Your task to perform on an android device: Open accessibility settings Image 0: 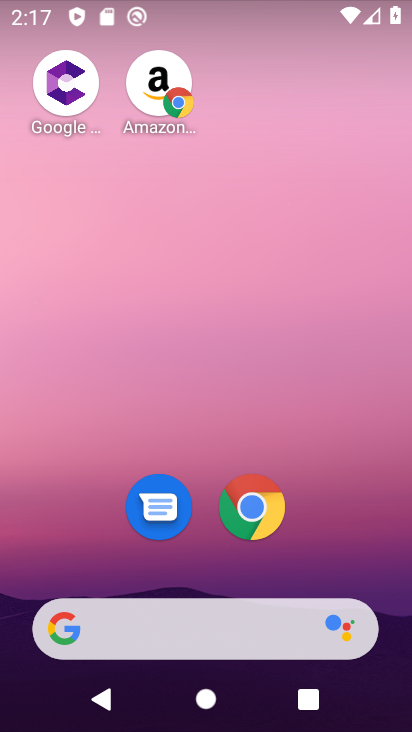
Step 0: drag from (270, 588) to (286, 247)
Your task to perform on an android device: Open accessibility settings Image 1: 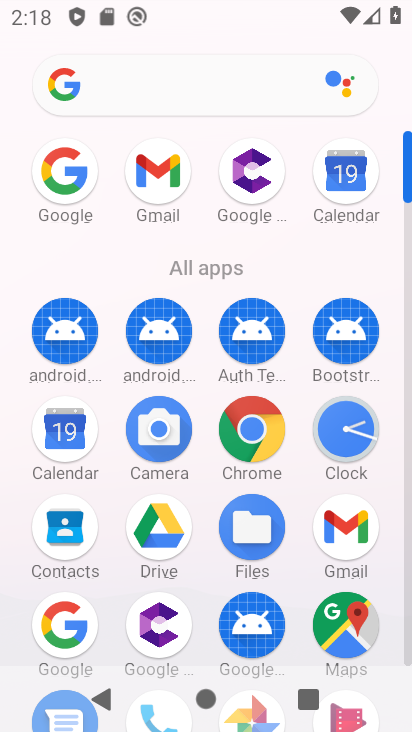
Step 1: drag from (206, 548) to (229, 216)
Your task to perform on an android device: Open accessibility settings Image 2: 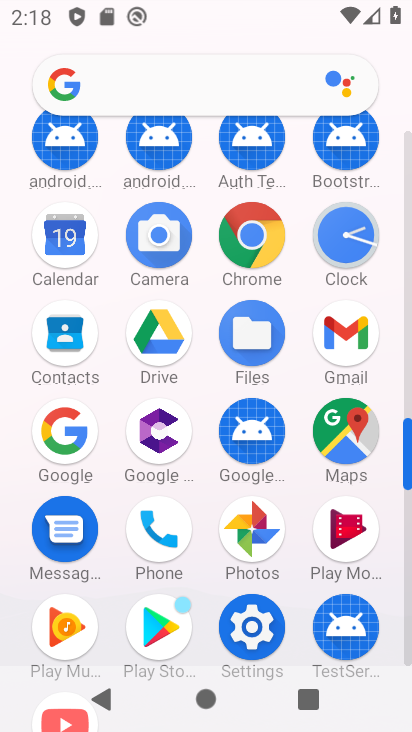
Step 2: click (260, 620)
Your task to perform on an android device: Open accessibility settings Image 3: 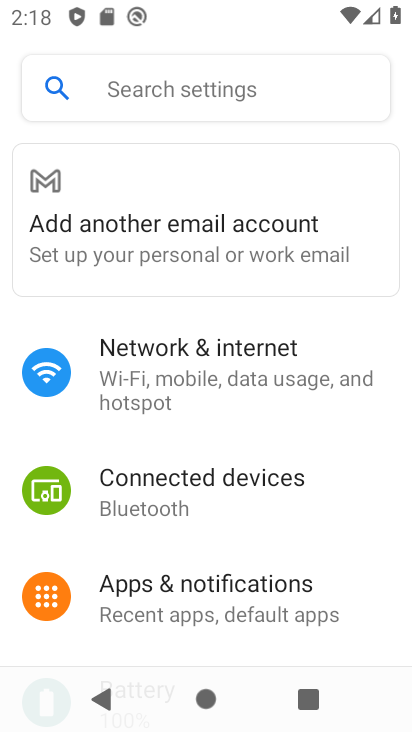
Step 3: drag from (258, 603) to (290, 129)
Your task to perform on an android device: Open accessibility settings Image 4: 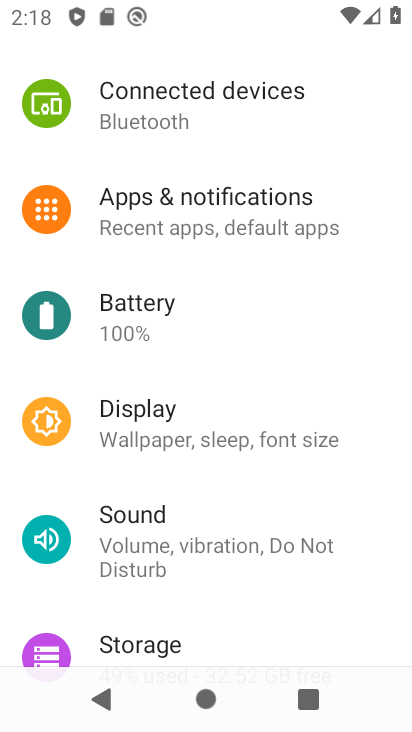
Step 4: drag from (302, 573) to (292, 80)
Your task to perform on an android device: Open accessibility settings Image 5: 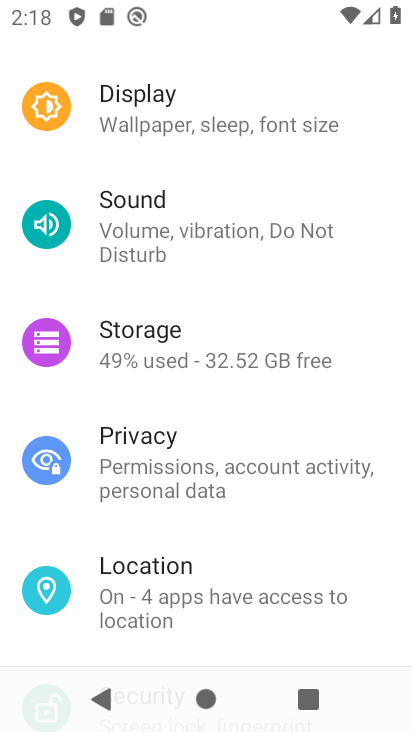
Step 5: drag from (320, 605) to (293, 208)
Your task to perform on an android device: Open accessibility settings Image 6: 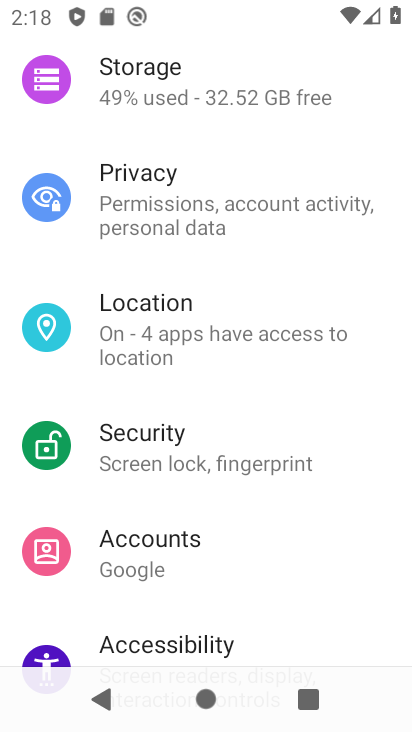
Step 6: click (199, 644)
Your task to perform on an android device: Open accessibility settings Image 7: 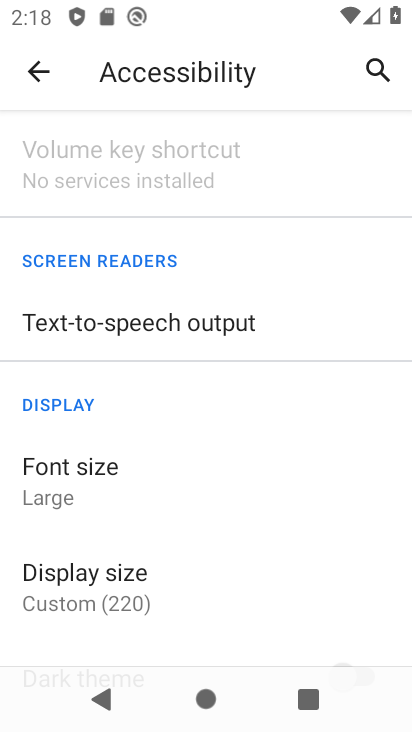
Step 7: task complete